Your task to perform on an android device: move a message to another label in the gmail app Image 0: 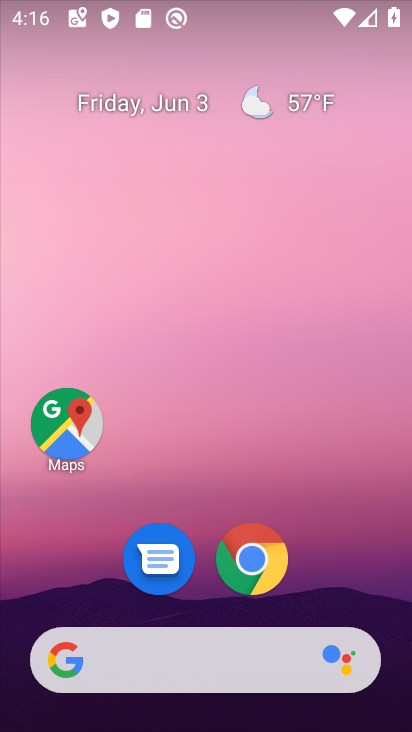
Step 0: click (331, 73)
Your task to perform on an android device: move a message to another label in the gmail app Image 1: 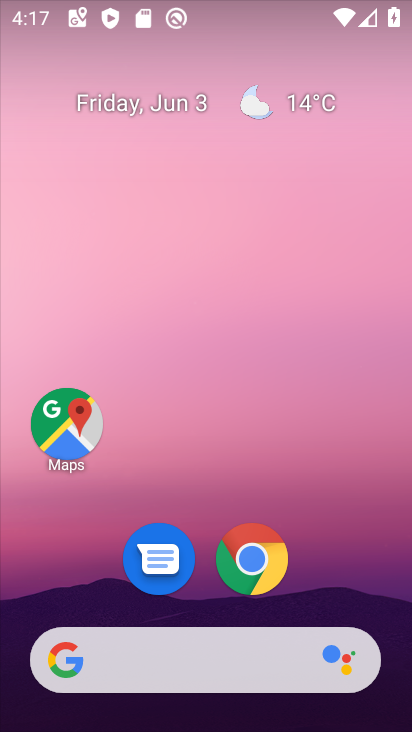
Step 1: click (343, 169)
Your task to perform on an android device: move a message to another label in the gmail app Image 2: 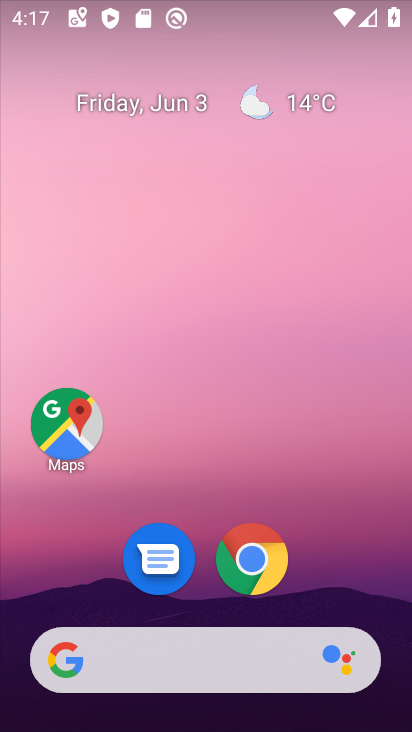
Step 2: drag from (296, 585) to (302, 139)
Your task to perform on an android device: move a message to another label in the gmail app Image 3: 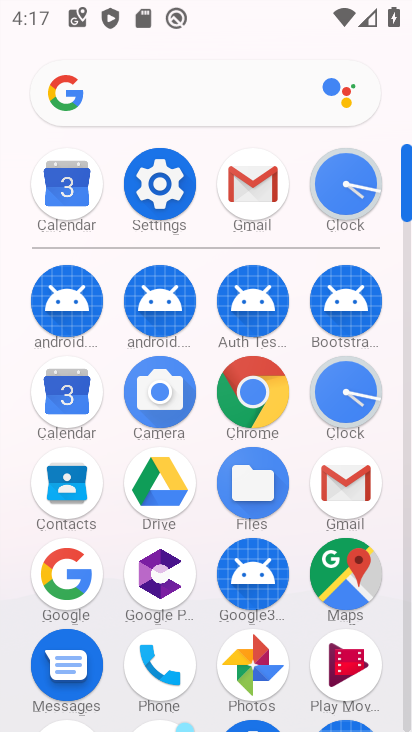
Step 3: click (352, 474)
Your task to perform on an android device: move a message to another label in the gmail app Image 4: 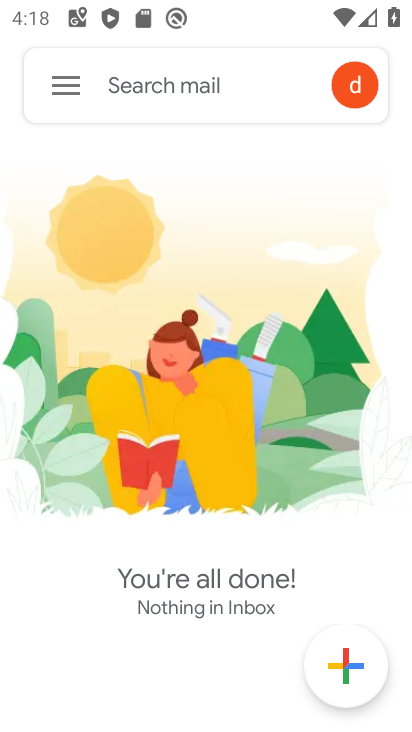
Step 4: task complete